Your task to perform on an android device: turn on the 24-hour format for clock Image 0: 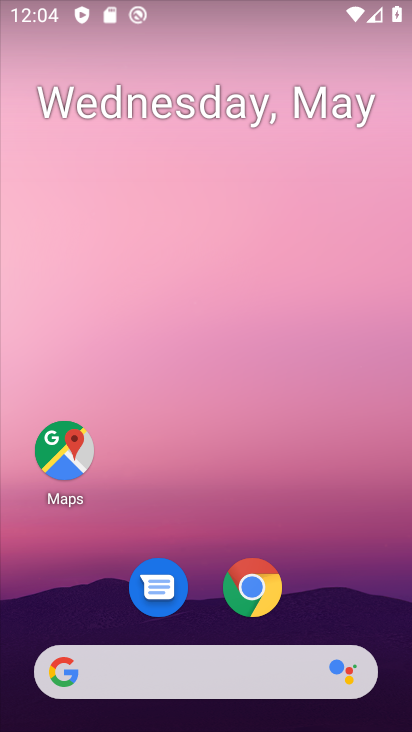
Step 0: drag from (353, 557) to (309, 130)
Your task to perform on an android device: turn on the 24-hour format for clock Image 1: 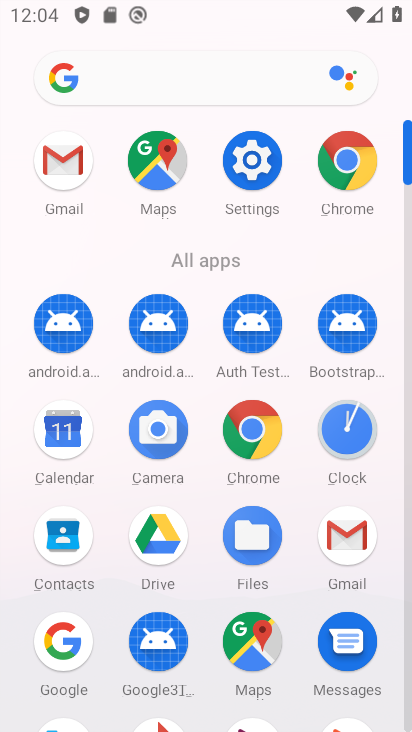
Step 1: click (345, 465)
Your task to perform on an android device: turn on the 24-hour format for clock Image 2: 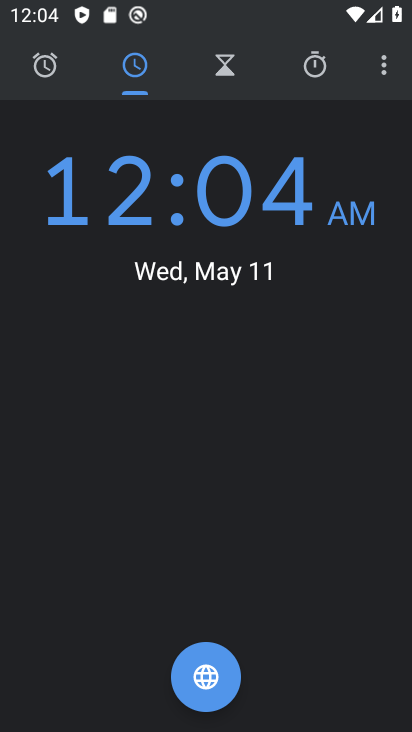
Step 2: click (381, 66)
Your task to perform on an android device: turn on the 24-hour format for clock Image 3: 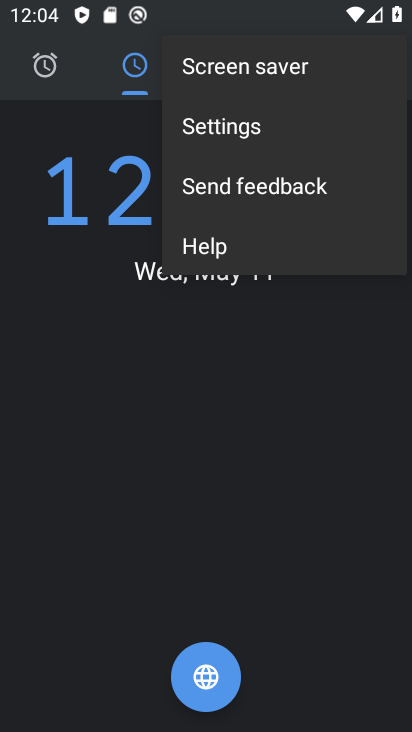
Step 3: click (249, 123)
Your task to perform on an android device: turn on the 24-hour format for clock Image 4: 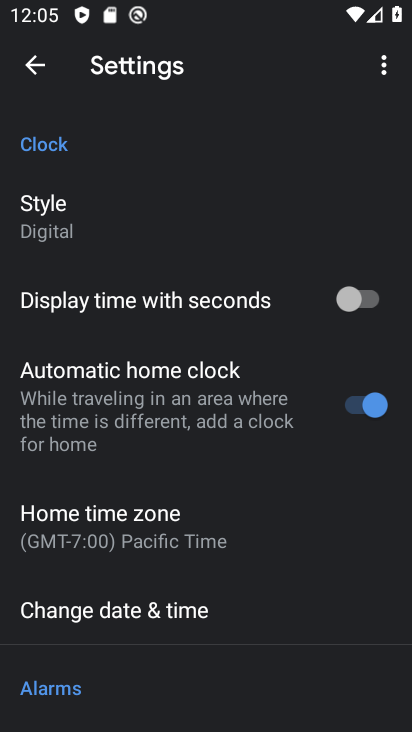
Step 4: click (196, 610)
Your task to perform on an android device: turn on the 24-hour format for clock Image 5: 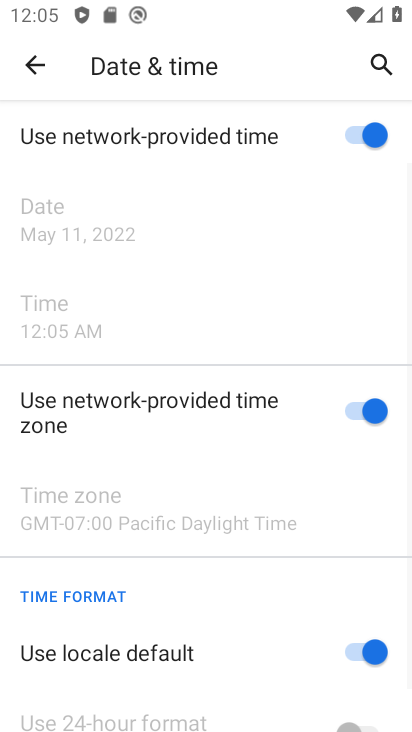
Step 5: drag from (242, 612) to (229, 229)
Your task to perform on an android device: turn on the 24-hour format for clock Image 6: 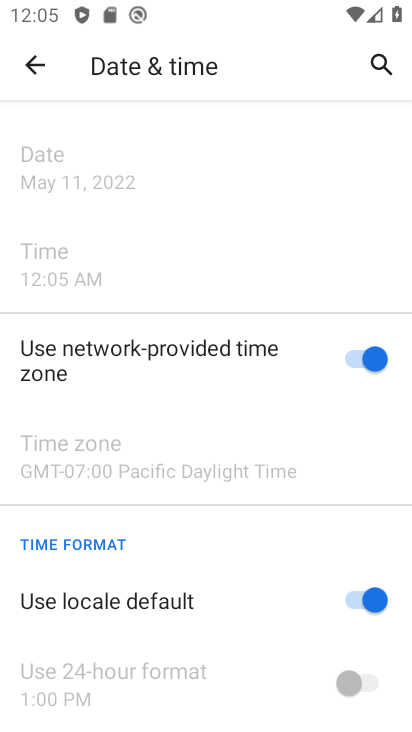
Step 6: click (356, 594)
Your task to perform on an android device: turn on the 24-hour format for clock Image 7: 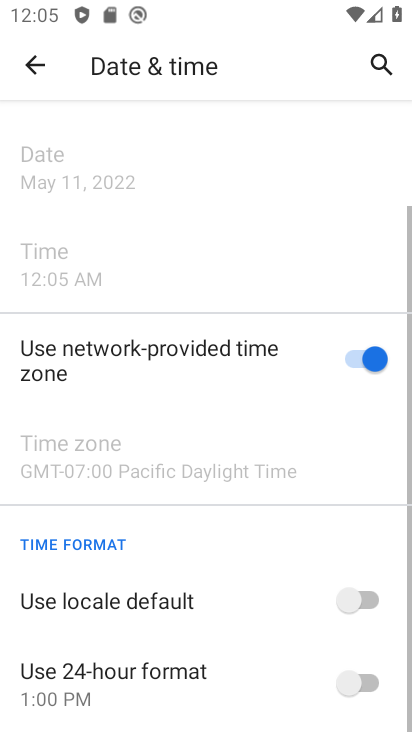
Step 7: click (345, 676)
Your task to perform on an android device: turn on the 24-hour format for clock Image 8: 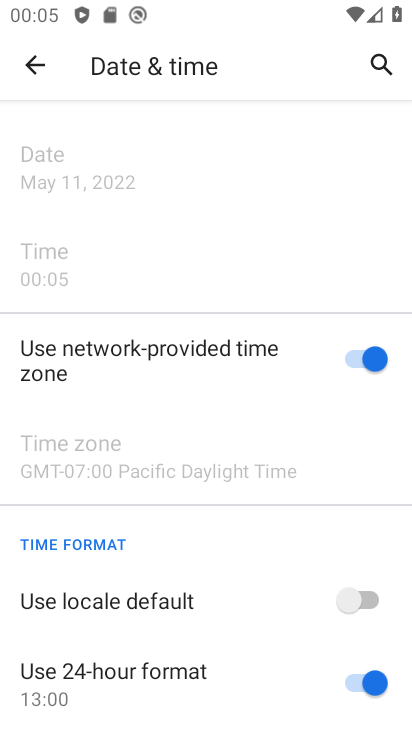
Step 8: task complete